Your task to perform on an android device: Go to ESPN.com Image 0: 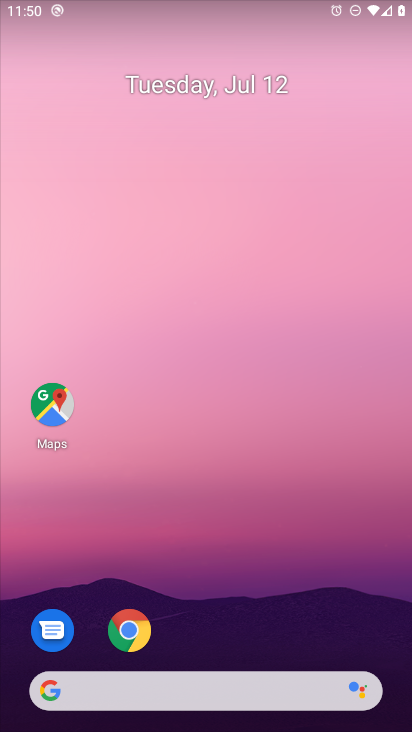
Step 0: click (228, 697)
Your task to perform on an android device: Go to ESPN.com Image 1: 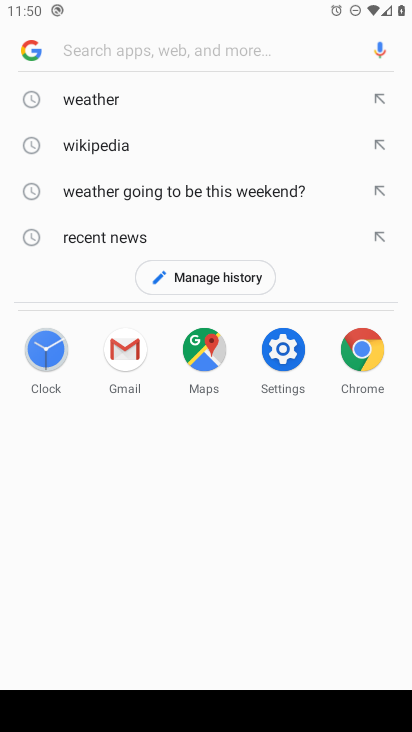
Step 1: type "ESPN.com"
Your task to perform on an android device: Go to ESPN.com Image 2: 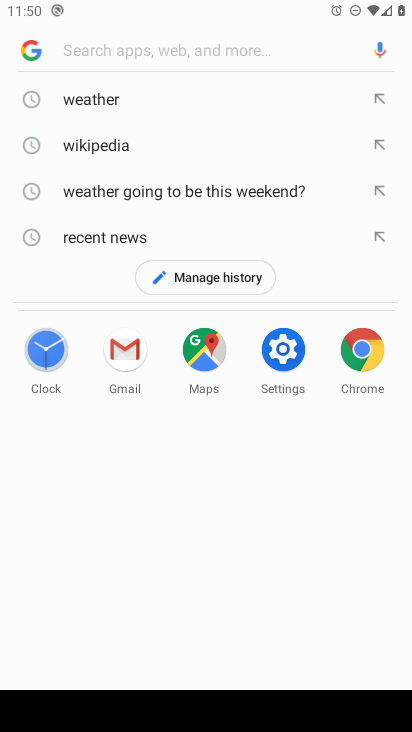
Step 2: click (97, 51)
Your task to perform on an android device: Go to ESPN.com Image 3: 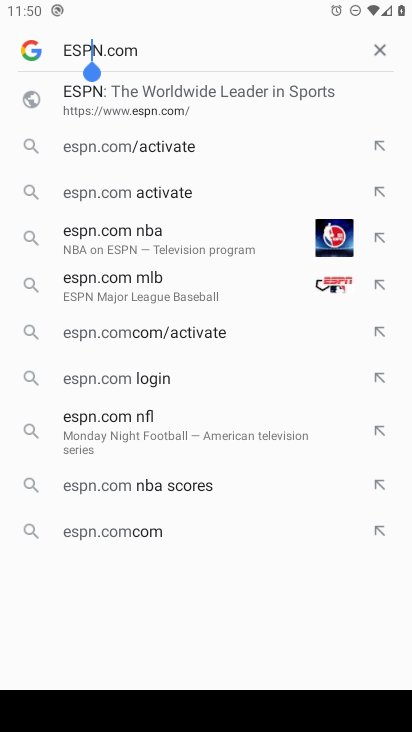
Step 3: click (193, 95)
Your task to perform on an android device: Go to ESPN.com Image 4: 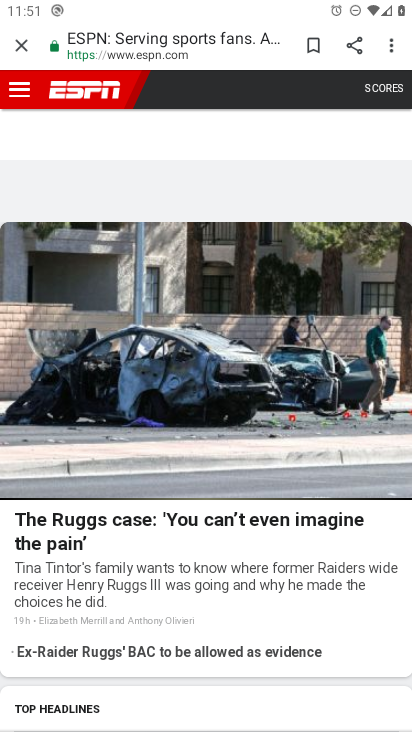
Step 4: task complete